Your task to perform on an android device: Show the shopping cart on ebay. Search for "usb-b" on ebay, select the first entry, and add it to the cart. Image 0: 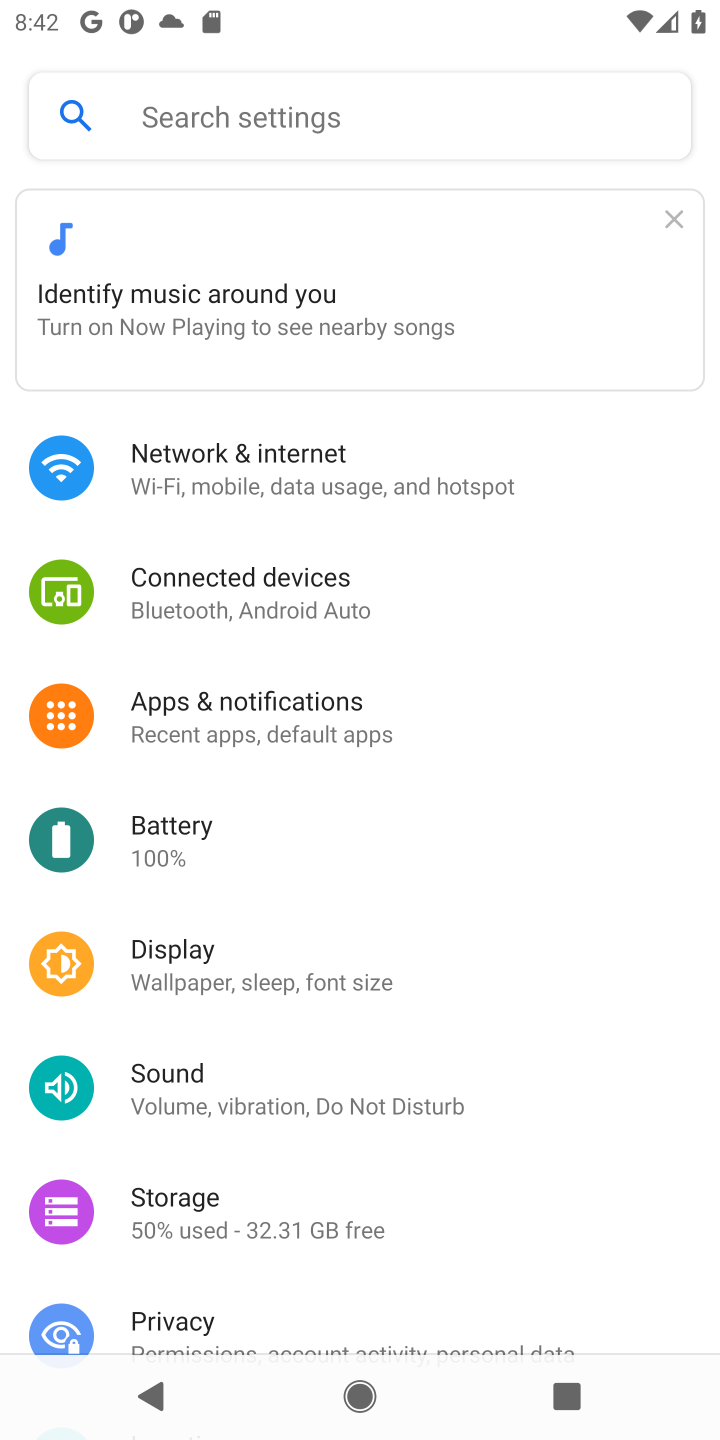
Step 0: press home button
Your task to perform on an android device: Show the shopping cart on ebay. Search for "usb-b" on ebay, select the first entry, and add it to the cart. Image 1: 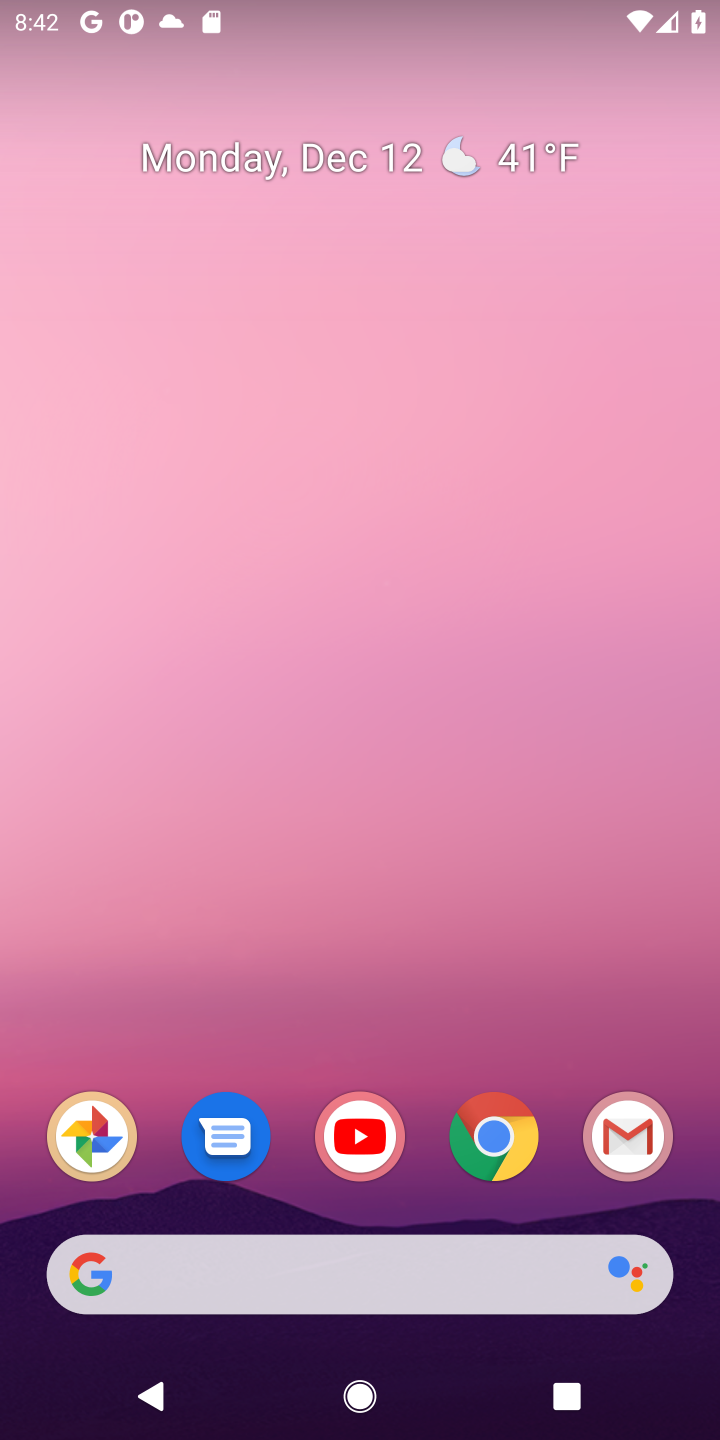
Step 1: click (491, 1128)
Your task to perform on an android device: Show the shopping cart on ebay. Search for "usb-b" on ebay, select the first entry, and add it to the cart. Image 2: 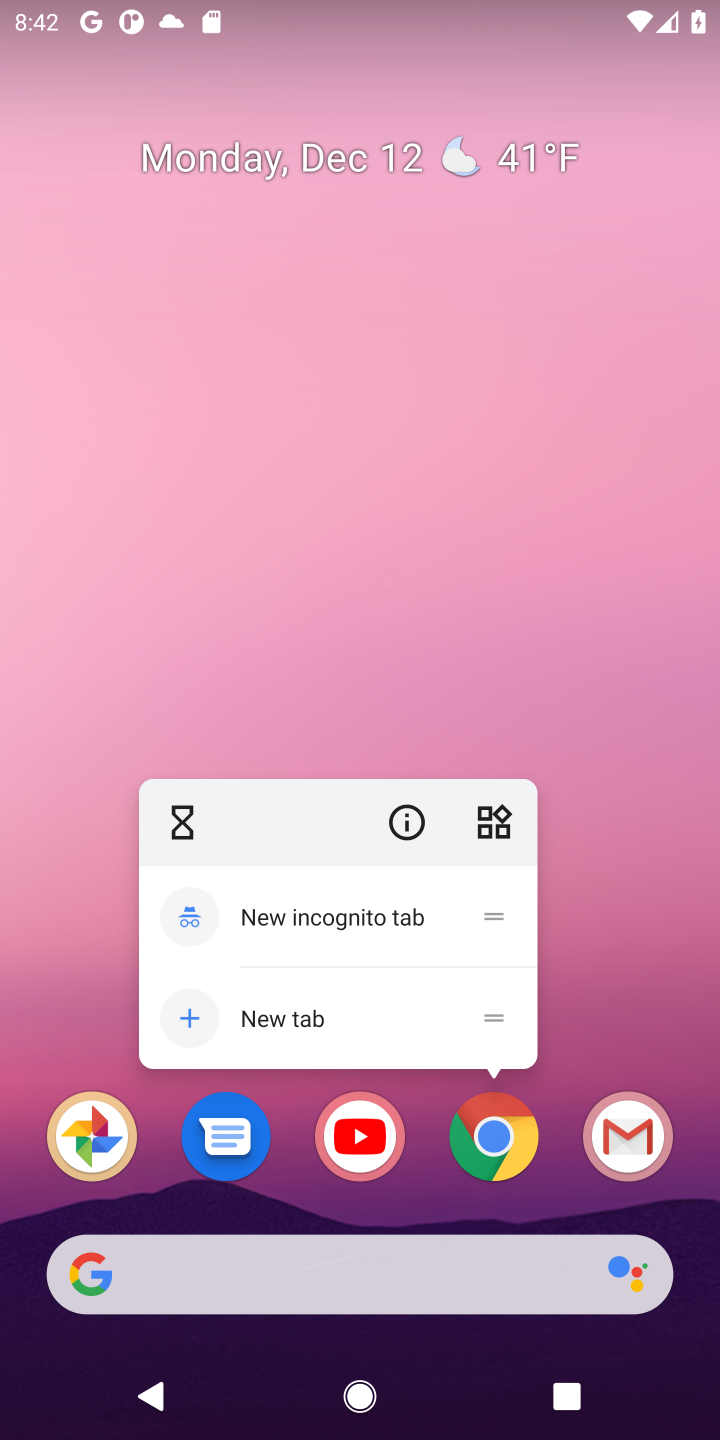
Step 2: click (491, 1135)
Your task to perform on an android device: Show the shopping cart on ebay. Search for "usb-b" on ebay, select the first entry, and add it to the cart. Image 3: 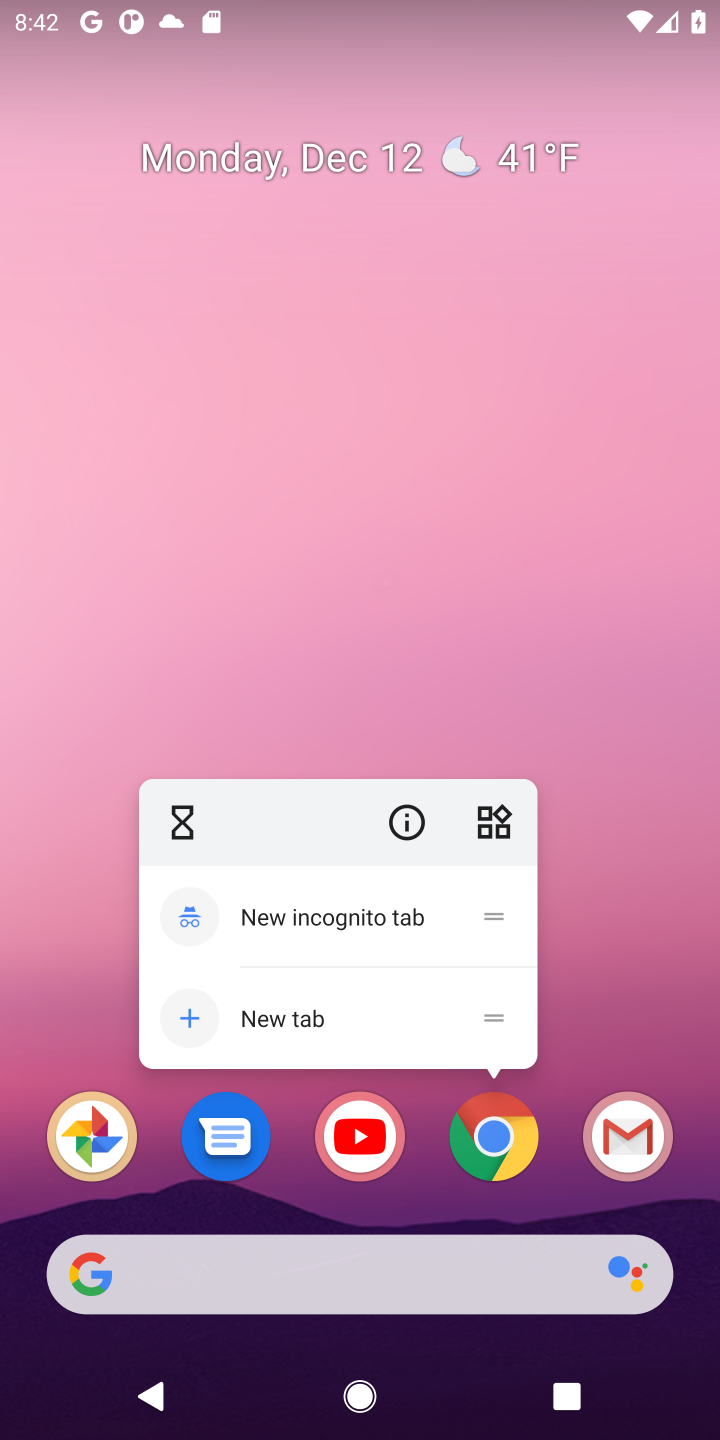
Step 3: click (491, 1155)
Your task to perform on an android device: Show the shopping cart on ebay. Search for "usb-b" on ebay, select the first entry, and add it to the cart. Image 4: 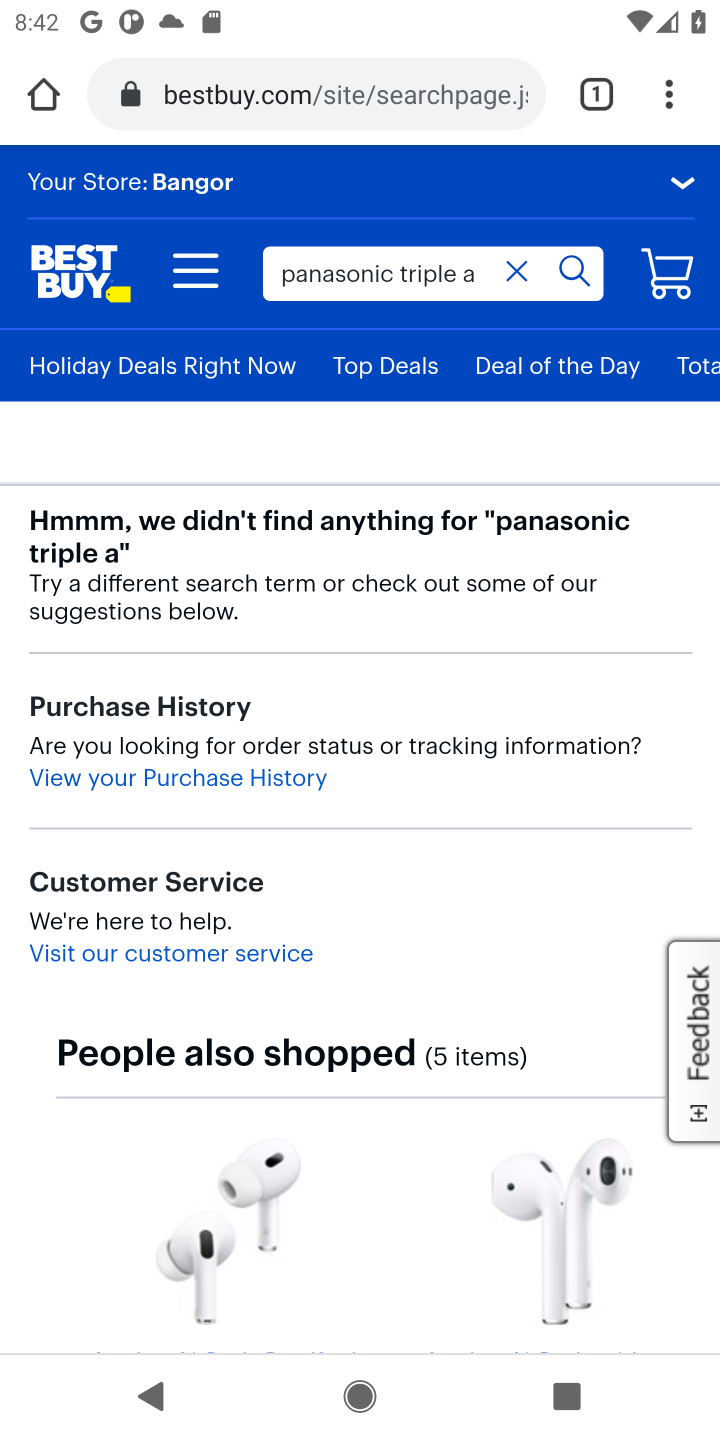
Step 4: click (264, 102)
Your task to perform on an android device: Show the shopping cart on ebay. Search for "usb-b" on ebay, select the first entry, and add it to the cart. Image 5: 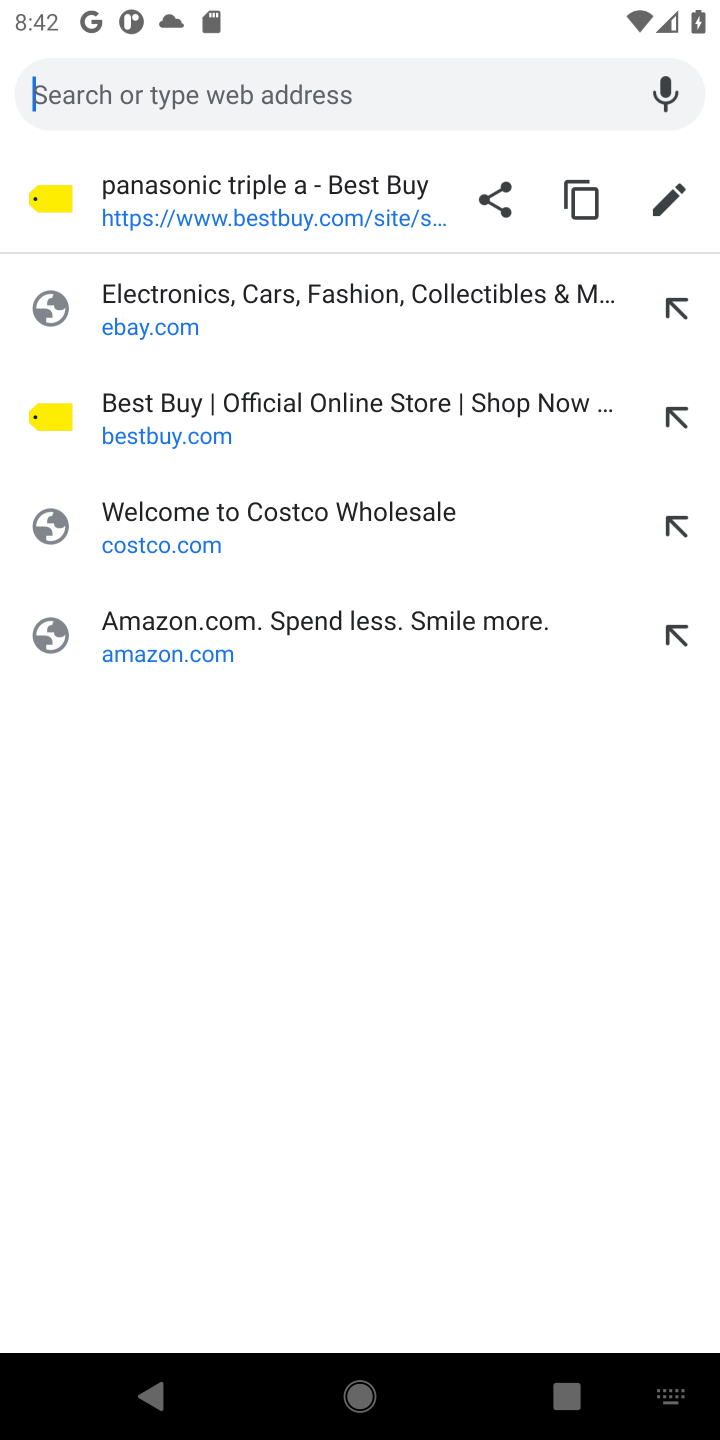
Step 5: click (151, 318)
Your task to perform on an android device: Show the shopping cart on ebay. Search for "usb-b" on ebay, select the first entry, and add it to the cart. Image 6: 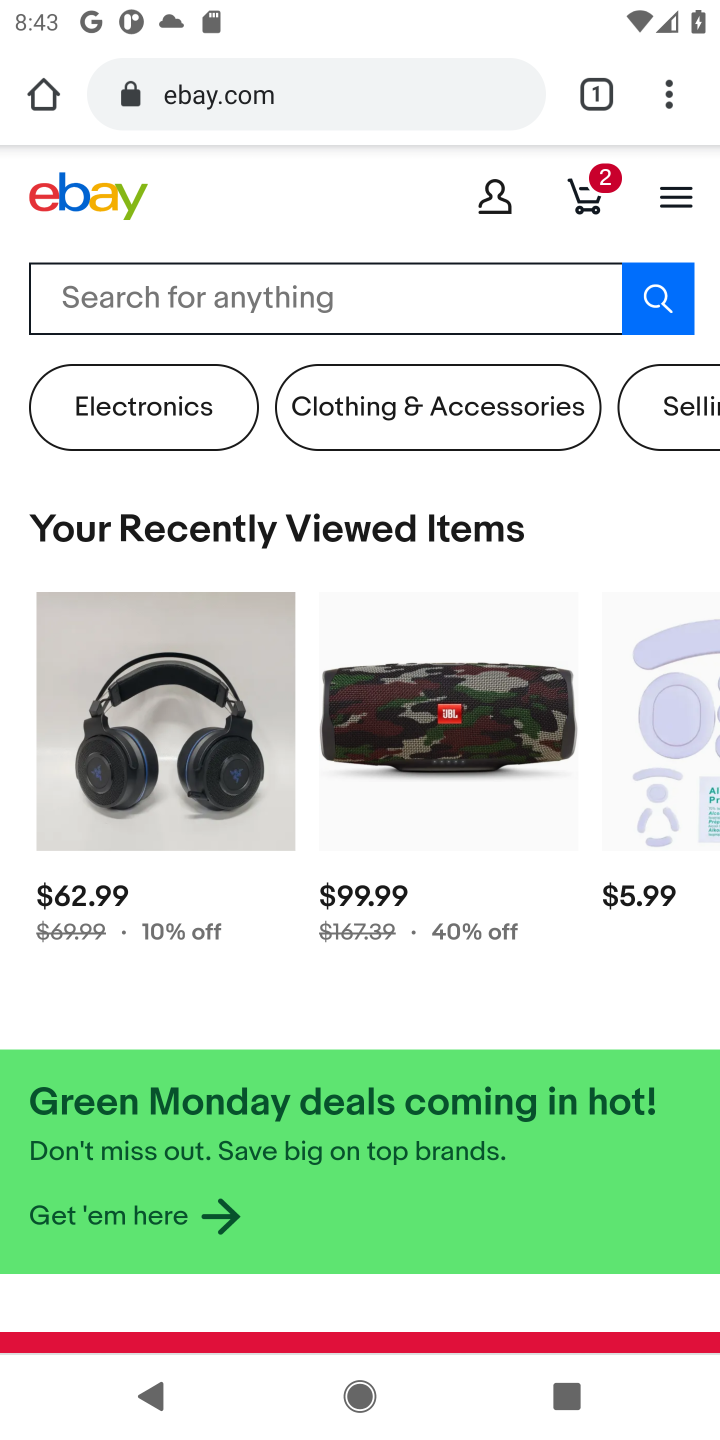
Step 6: click (579, 200)
Your task to perform on an android device: Show the shopping cart on ebay. Search for "usb-b" on ebay, select the first entry, and add it to the cart. Image 7: 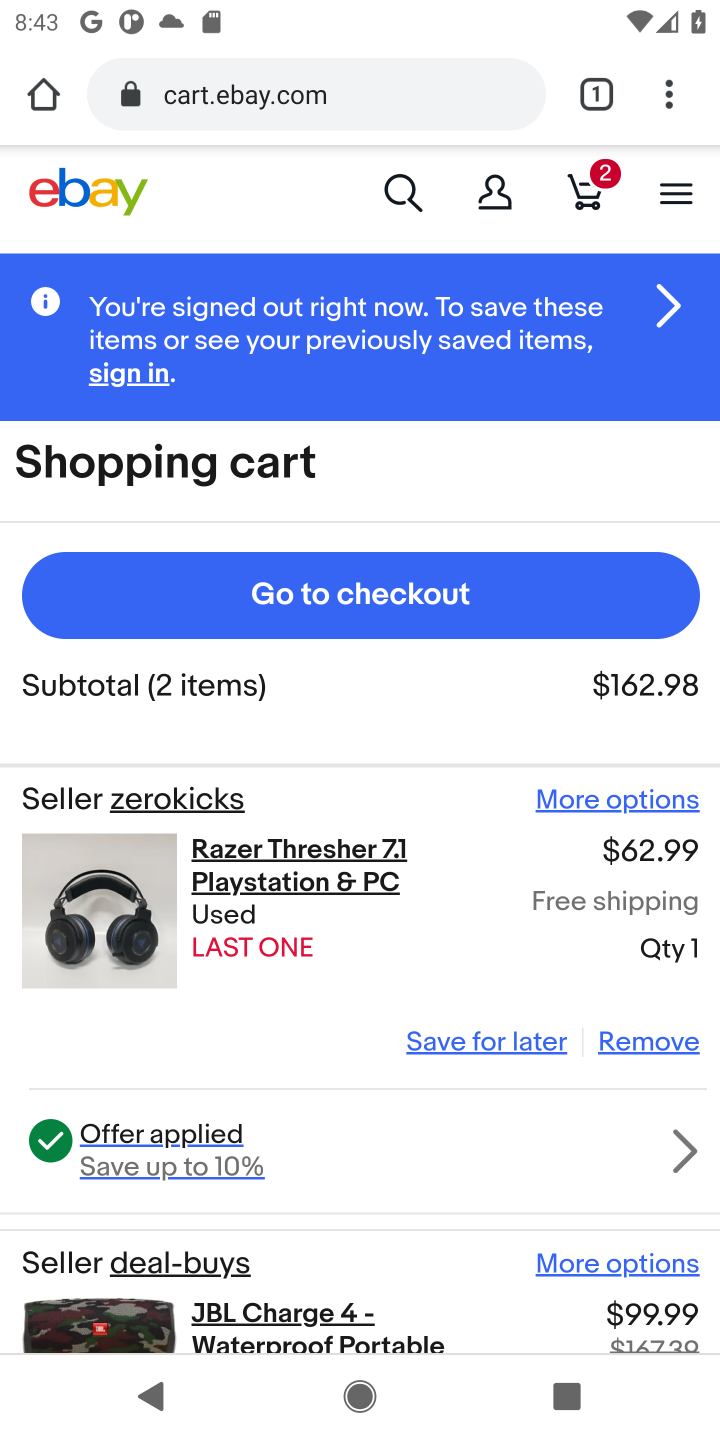
Step 7: click (401, 203)
Your task to perform on an android device: Show the shopping cart on ebay. Search for "usb-b" on ebay, select the first entry, and add it to the cart. Image 8: 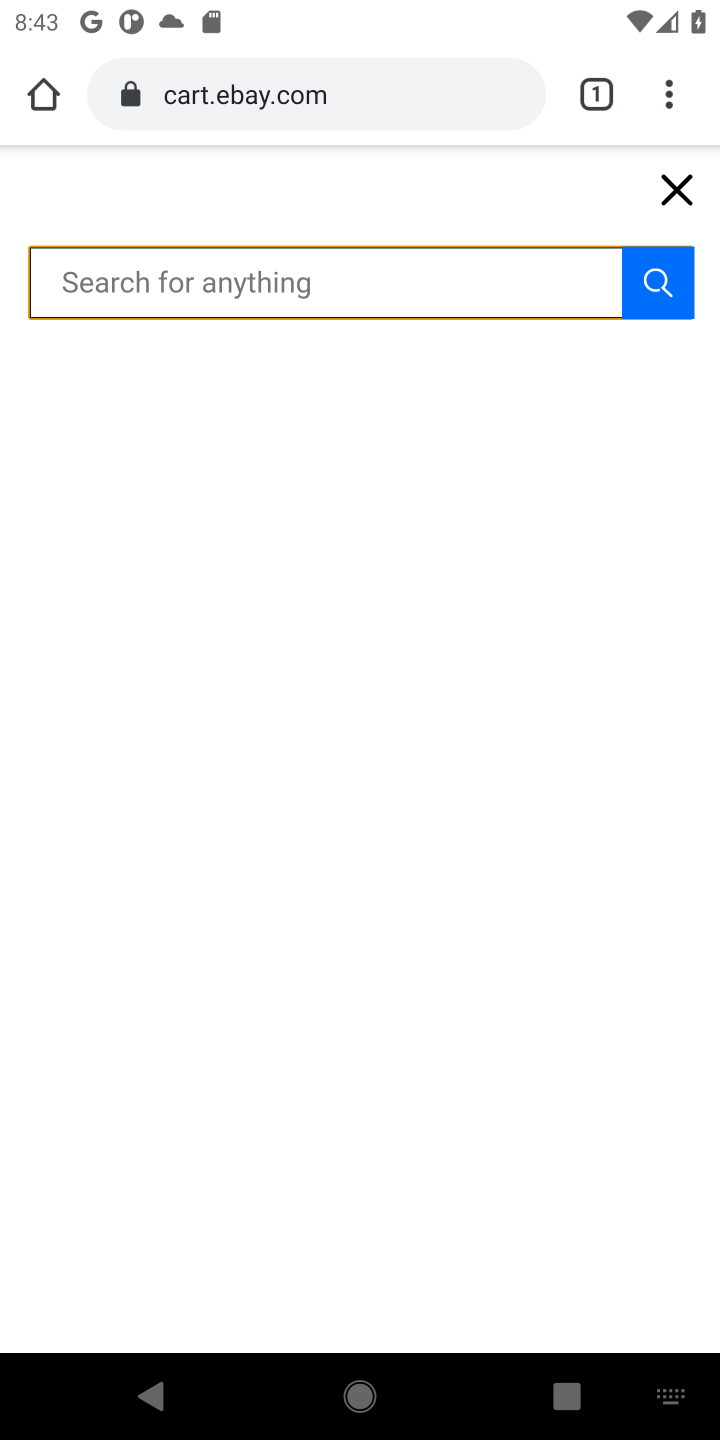
Step 8: type "usb-b"
Your task to perform on an android device: Show the shopping cart on ebay. Search for "usb-b" on ebay, select the first entry, and add it to the cart. Image 9: 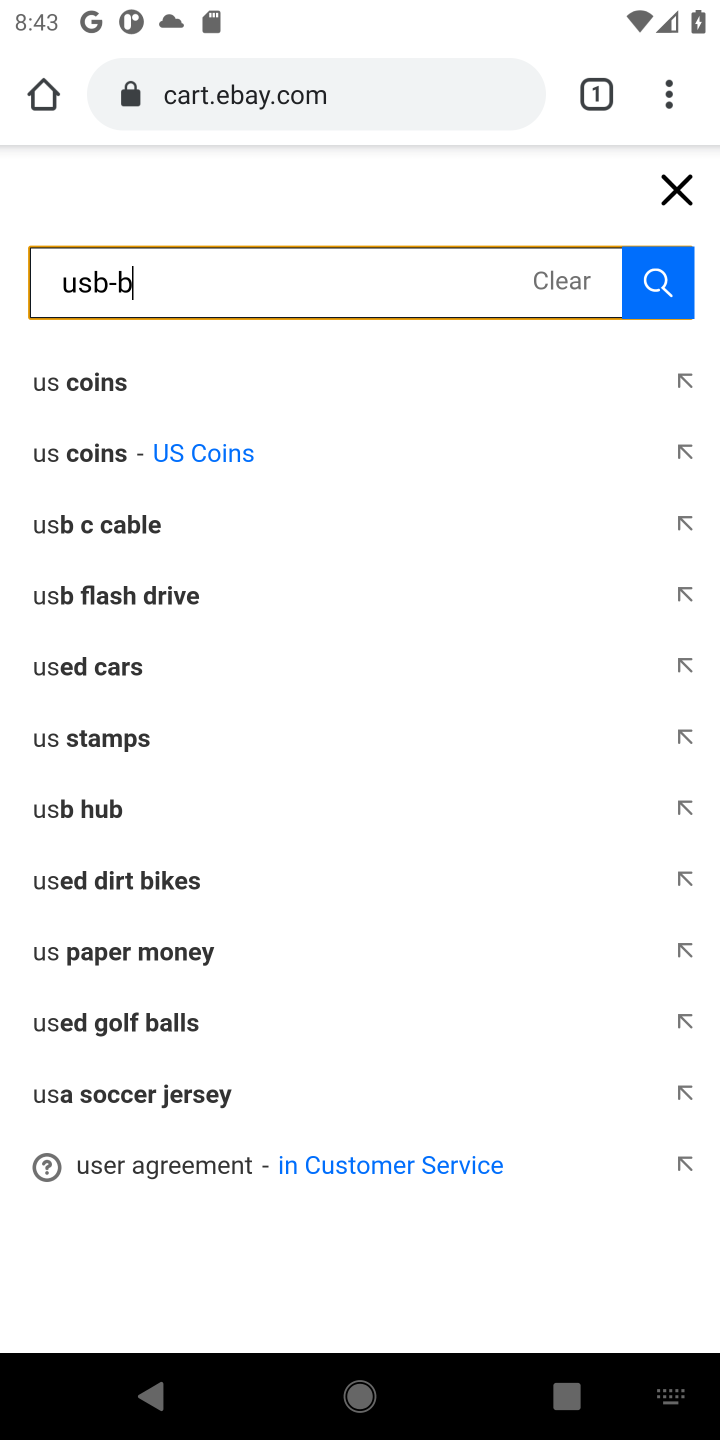
Step 9: click (652, 278)
Your task to perform on an android device: Show the shopping cart on ebay. Search for "usb-b" on ebay, select the first entry, and add it to the cart. Image 10: 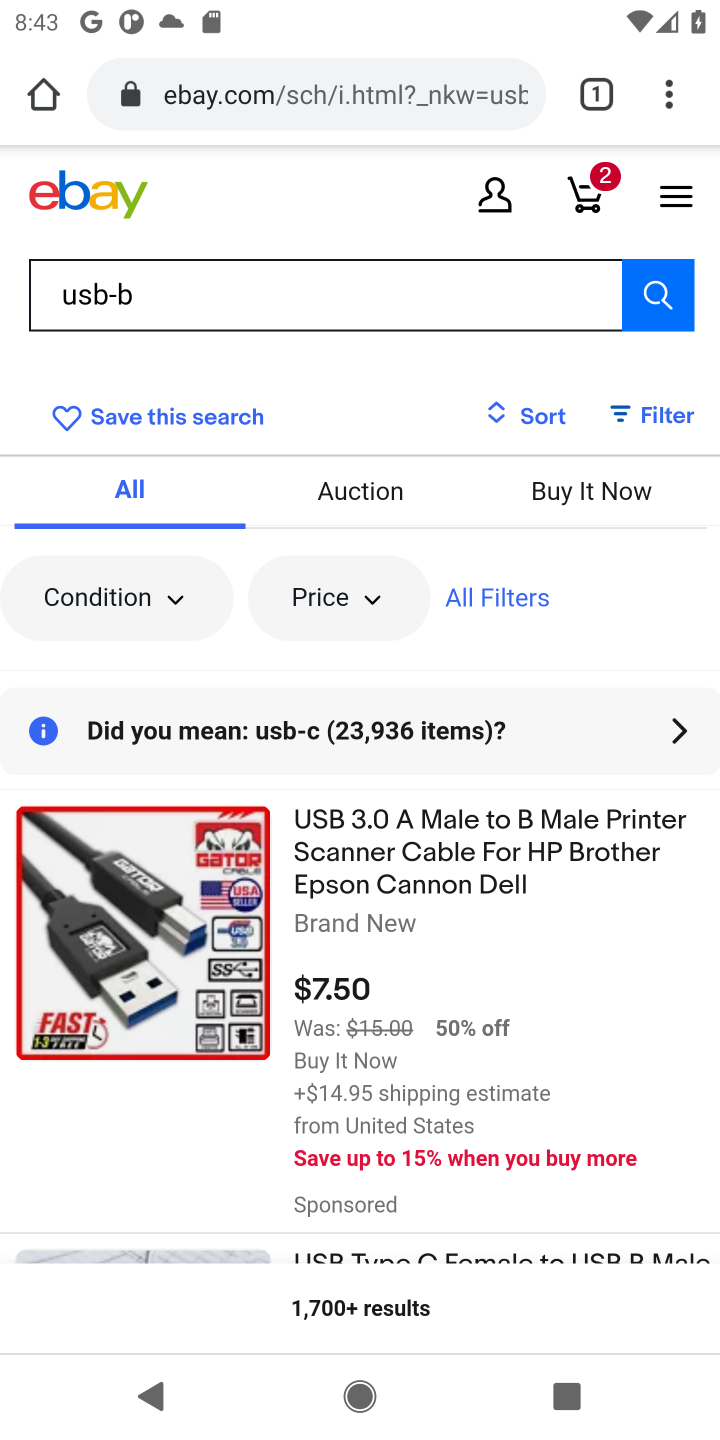
Step 10: click (342, 882)
Your task to perform on an android device: Show the shopping cart on ebay. Search for "usb-b" on ebay, select the first entry, and add it to the cart. Image 11: 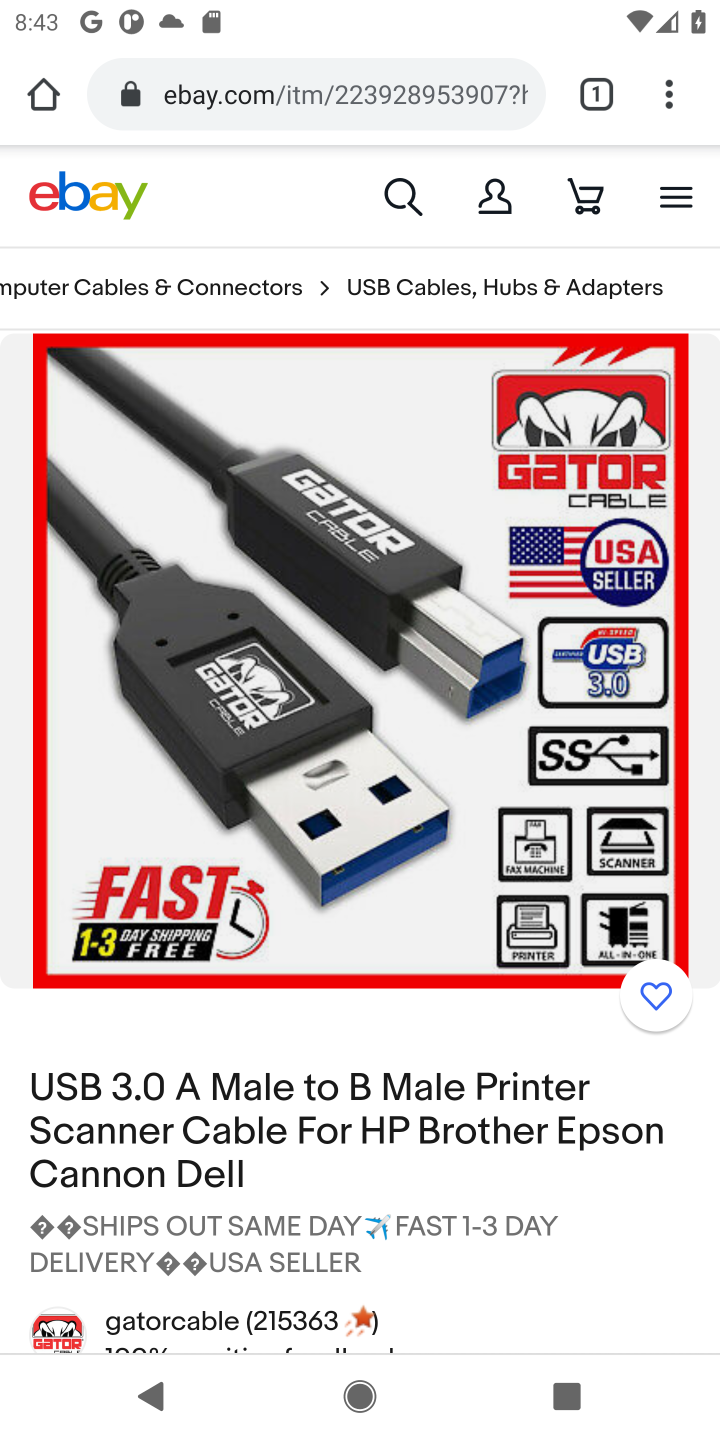
Step 11: drag from (326, 1145) to (350, 482)
Your task to perform on an android device: Show the shopping cart on ebay. Search for "usb-b" on ebay, select the first entry, and add it to the cart. Image 12: 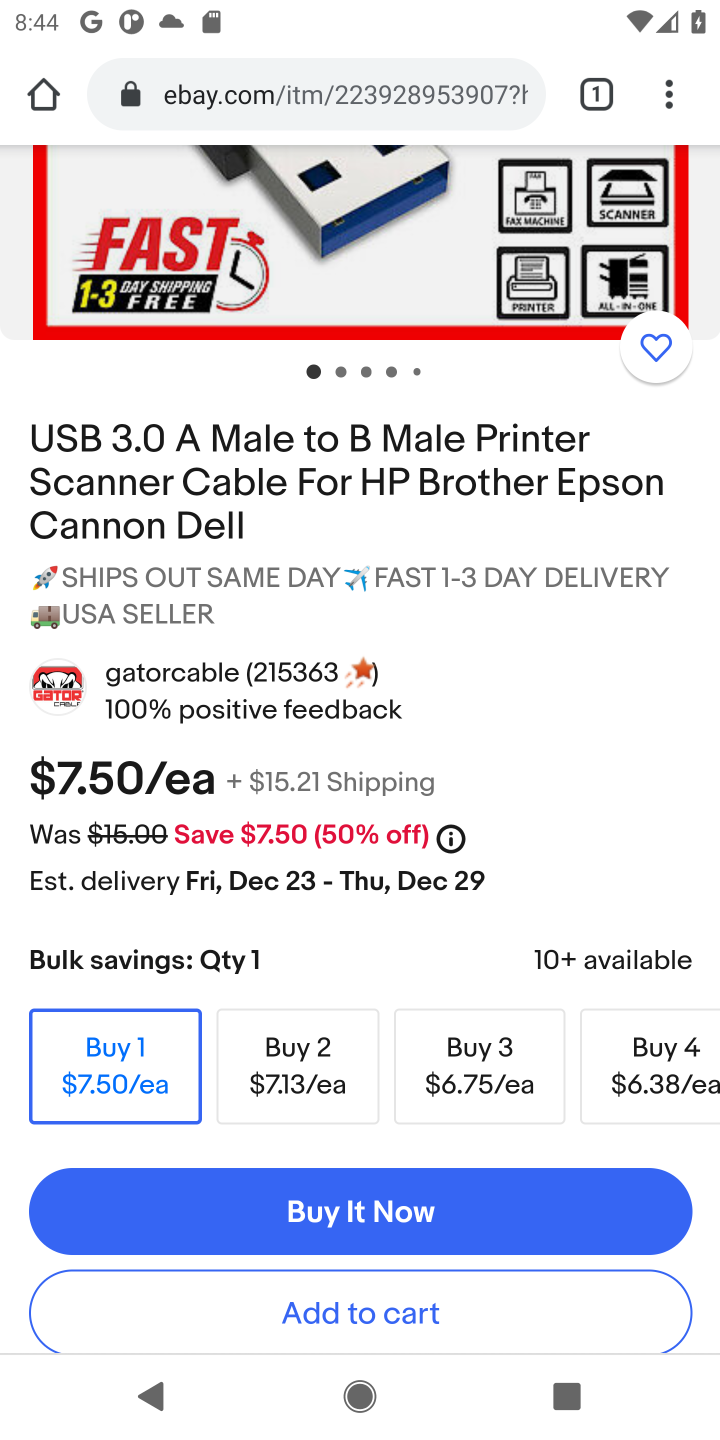
Step 12: click (277, 1317)
Your task to perform on an android device: Show the shopping cart on ebay. Search for "usb-b" on ebay, select the first entry, and add it to the cart. Image 13: 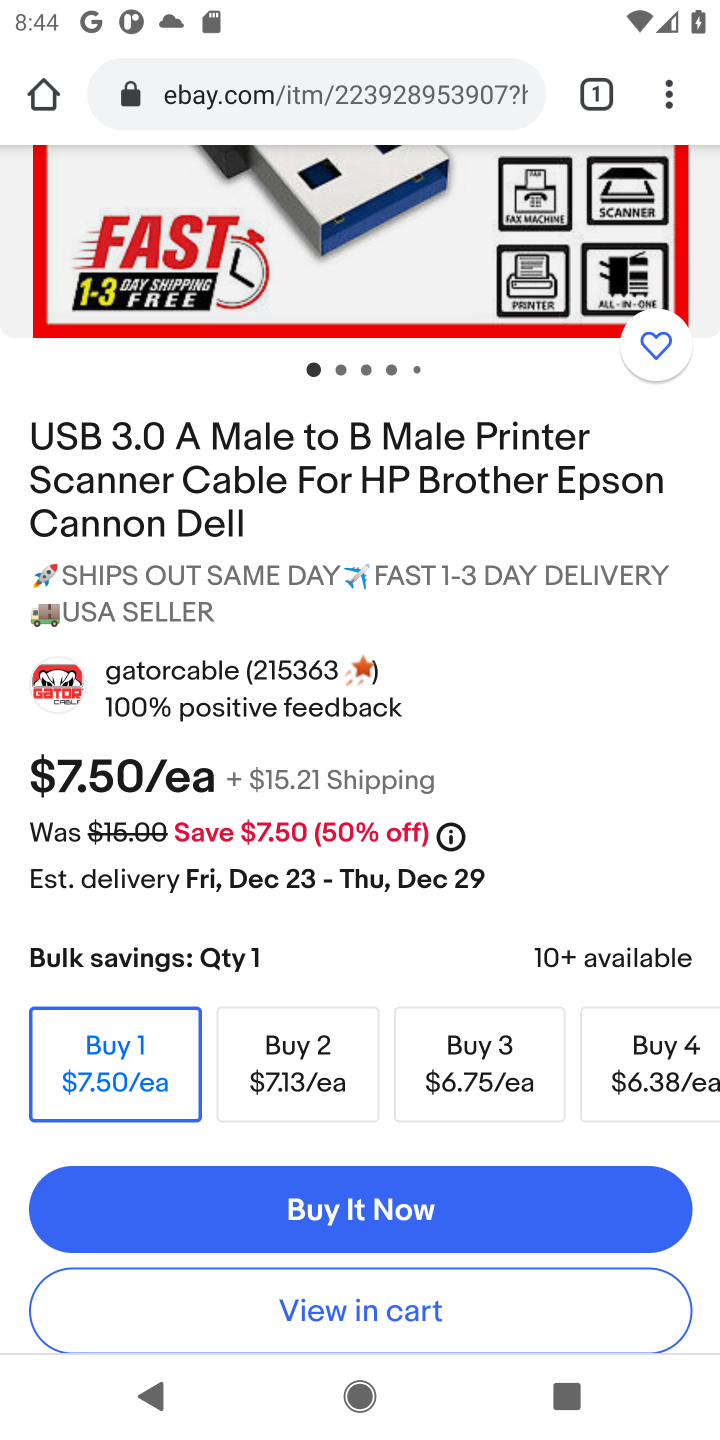
Step 13: task complete